Your task to perform on an android device: Play the last video I watched on Youtube Image 0: 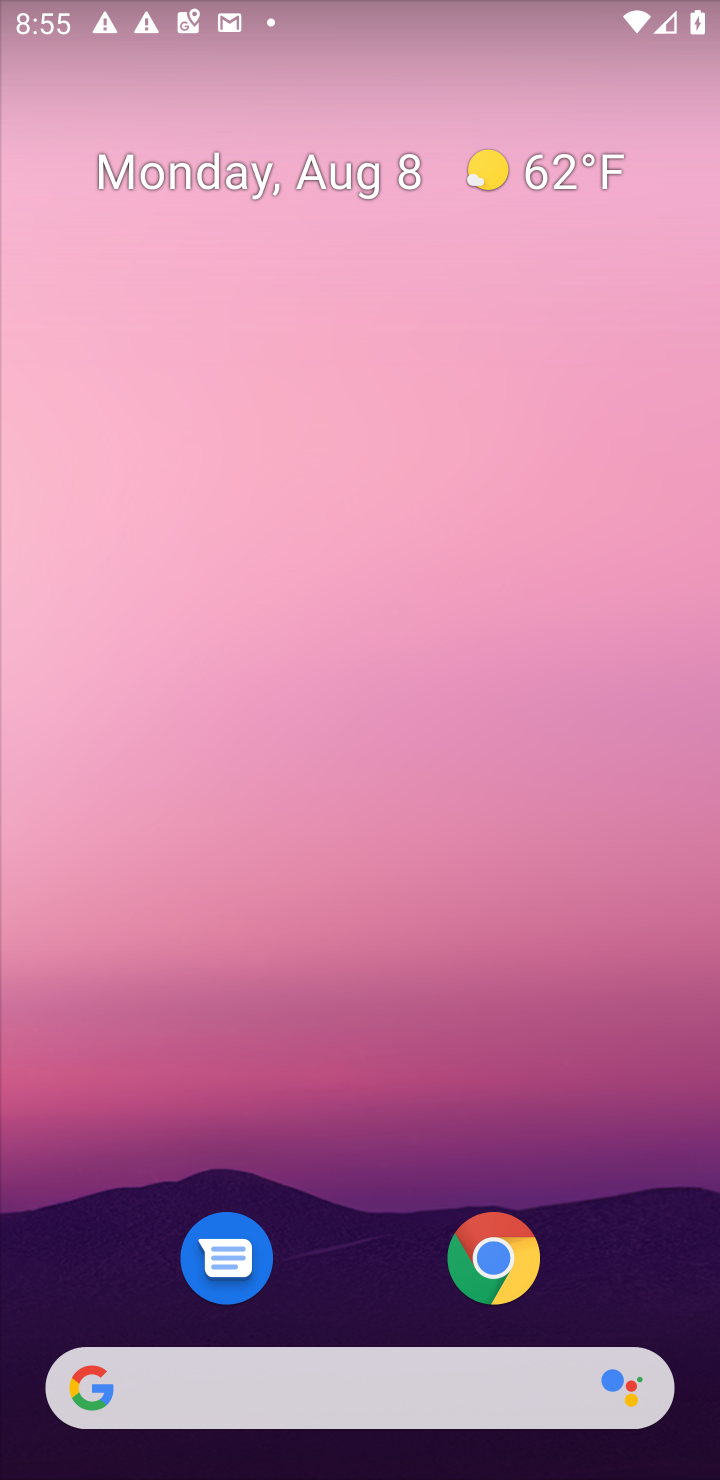
Step 0: press home button
Your task to perform on an android device: Play the last video I watched on Youtube Image 1: 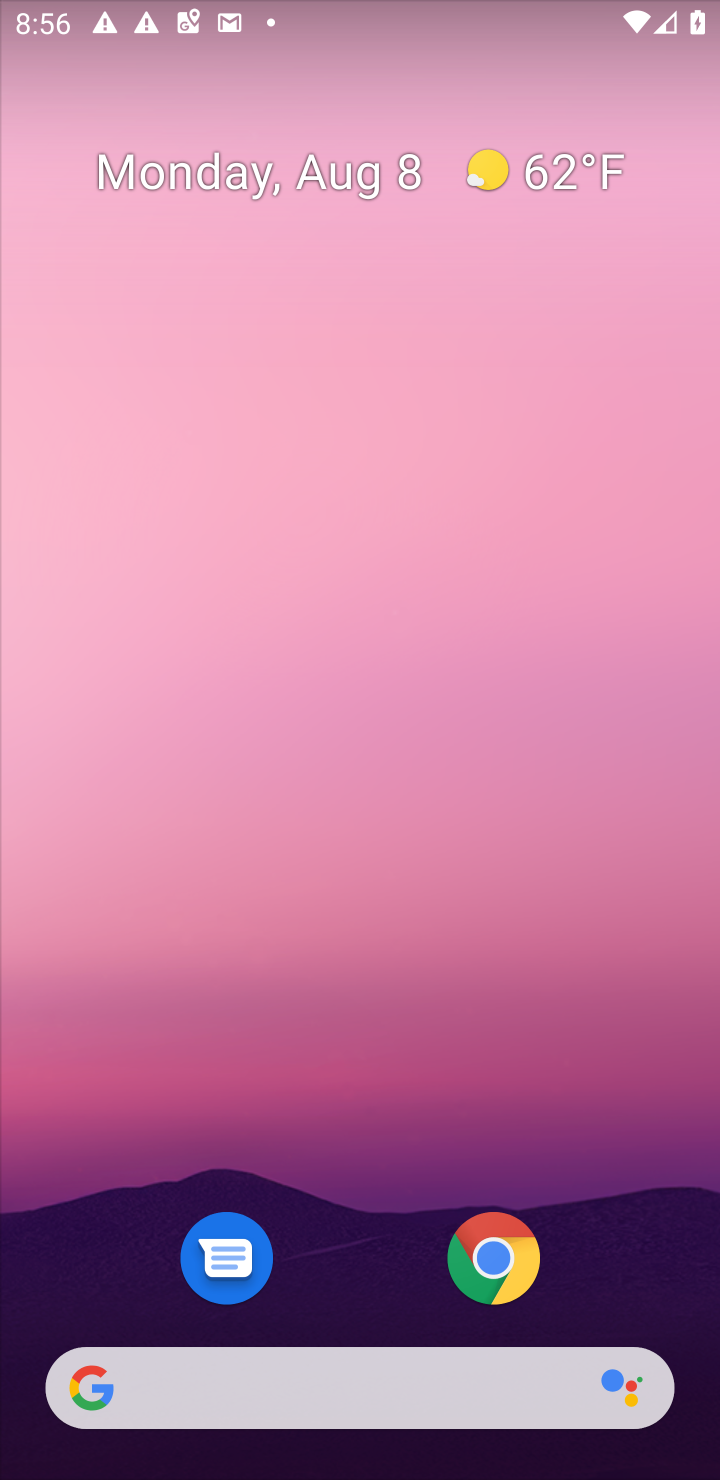
Step 1: drag from (395, 1146) to (488, 337)
Your task to perform on an android device: Play the last video I watched on Youtube Image 2: 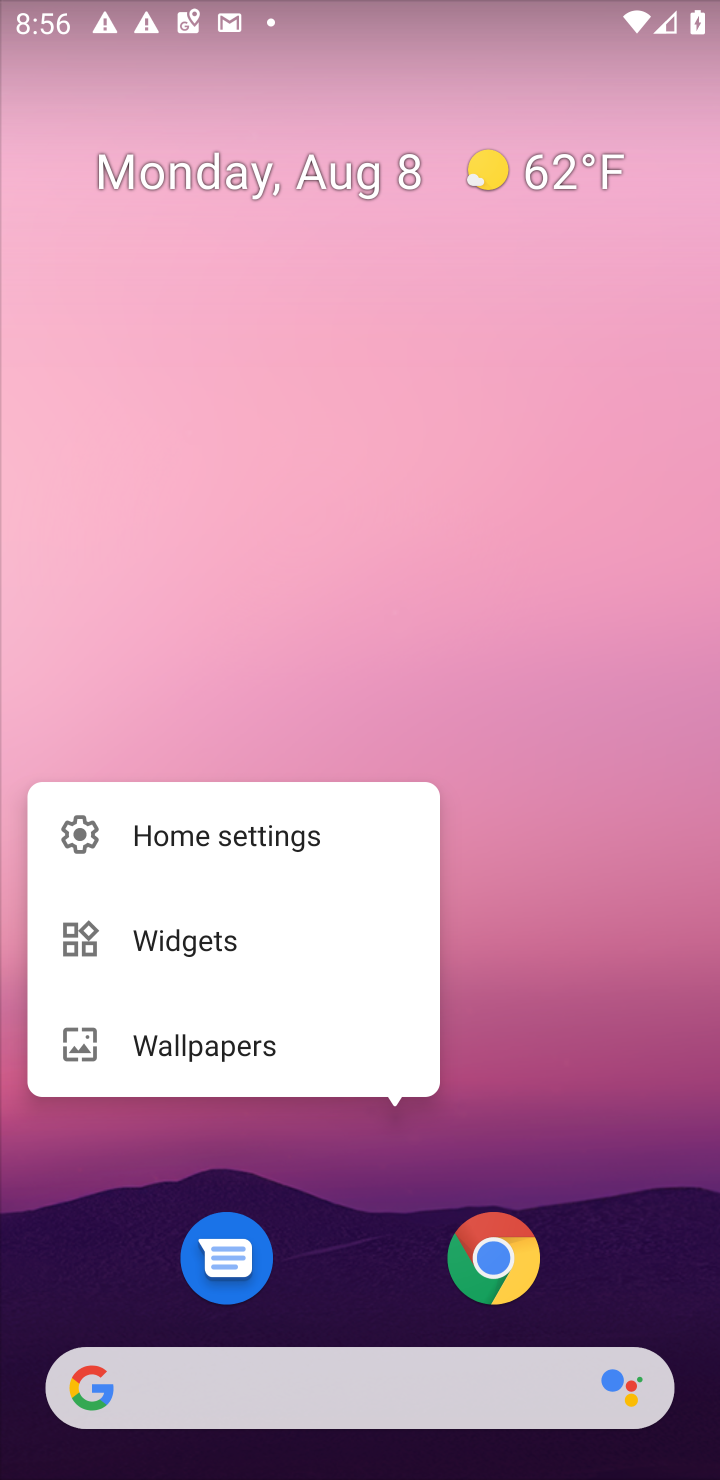
Step 2: click (565, 817)
Your task to perform on an android device: Play the last video I watched on Youtube Image 3: 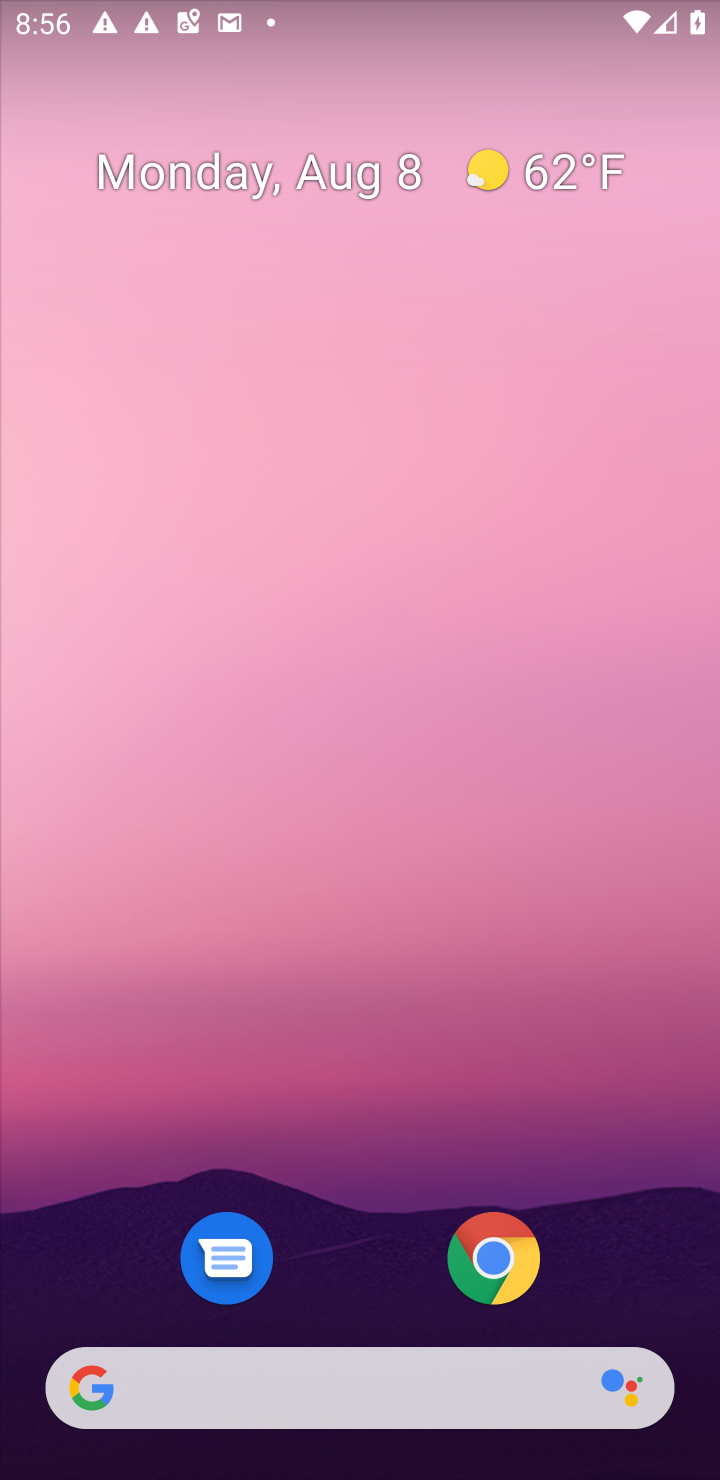
Step 3: drag from (427, 810) to (409, 269)
Your task to perform on an android device: Play the last video I watched on Youtube Image 4: 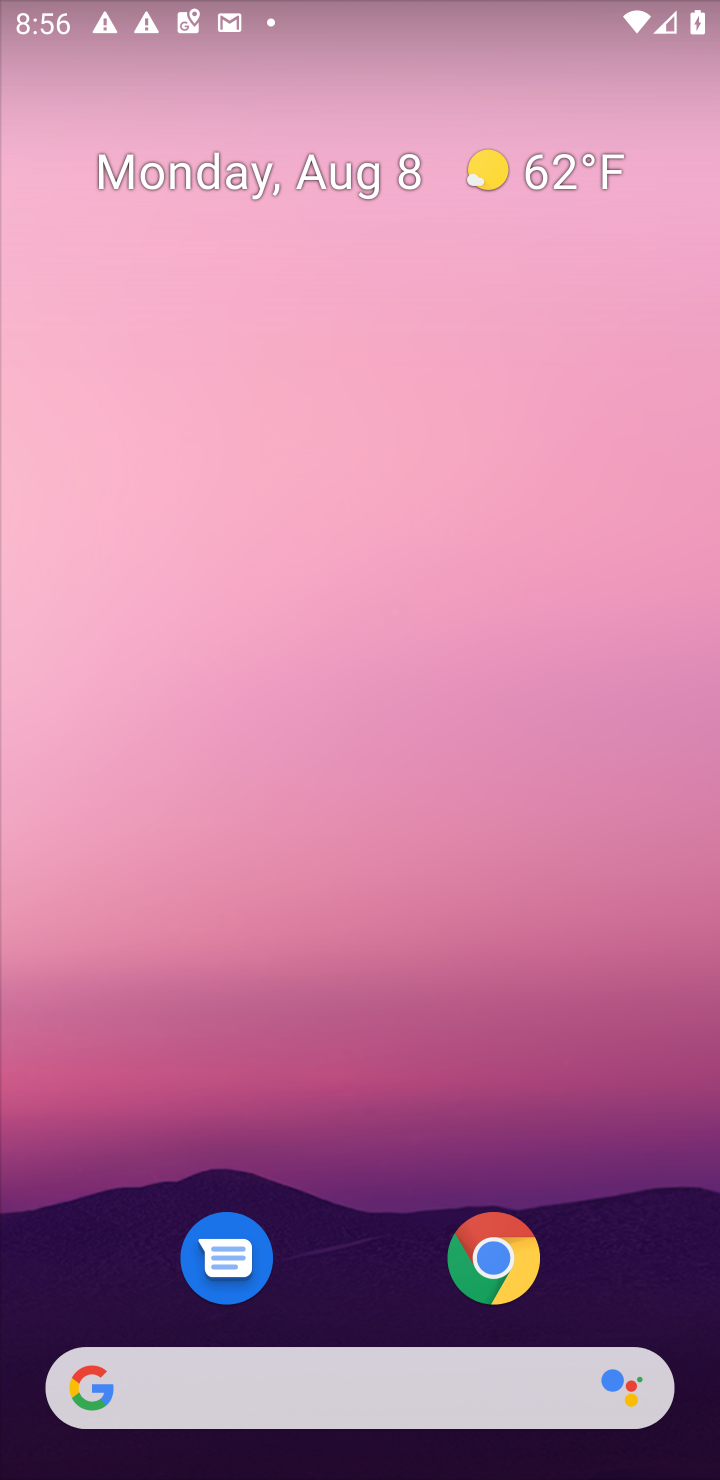
Step 4: drag from (354, 795) to (320, 220)
Your task to perform on an android device: Play the last video I watched on Youtube Image 5: 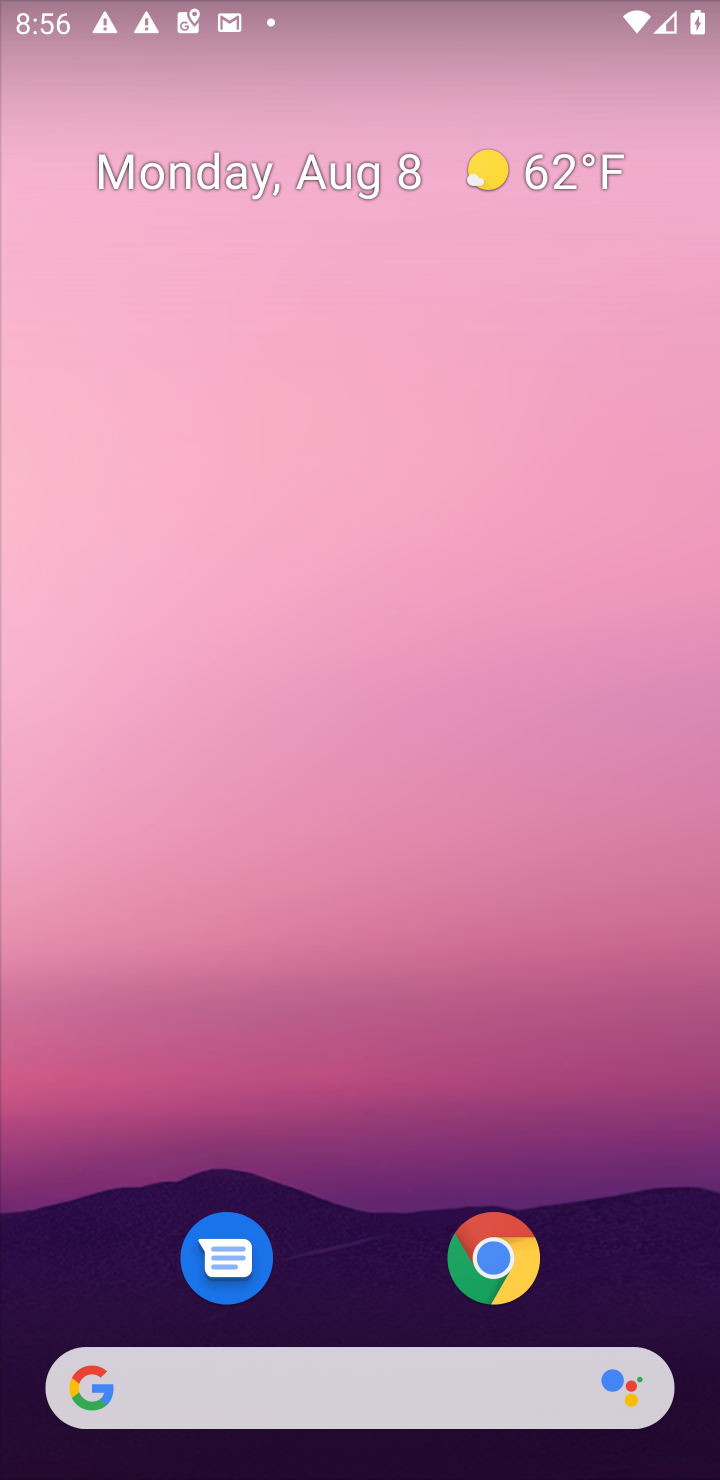
Step 5: drag from (337, 1034) to (223, 16)
Your task to perform on an android device: Play the last video I watched on Youtube Image 6: 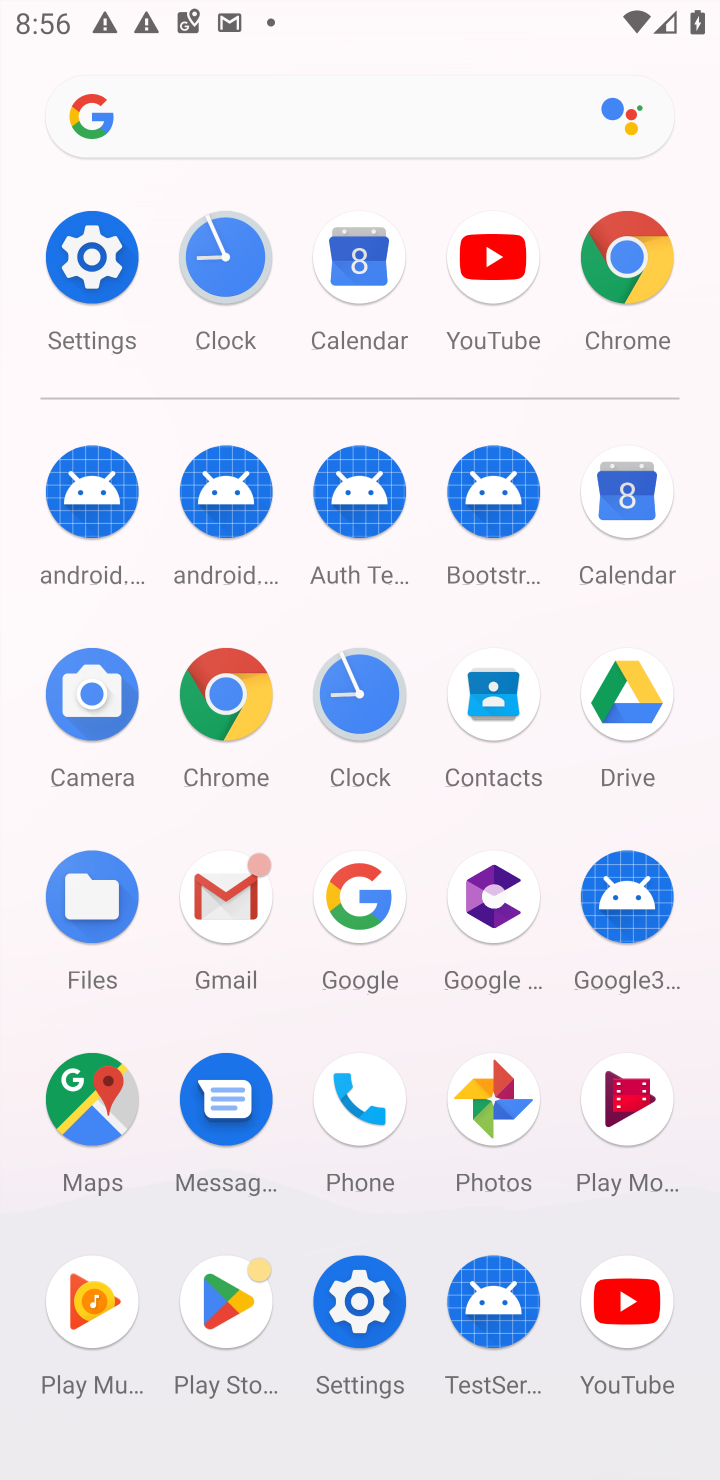
Step 6: click (639, 1315)
Your task to perform on an android device: Play the last video I watched on Youtube Image 7: 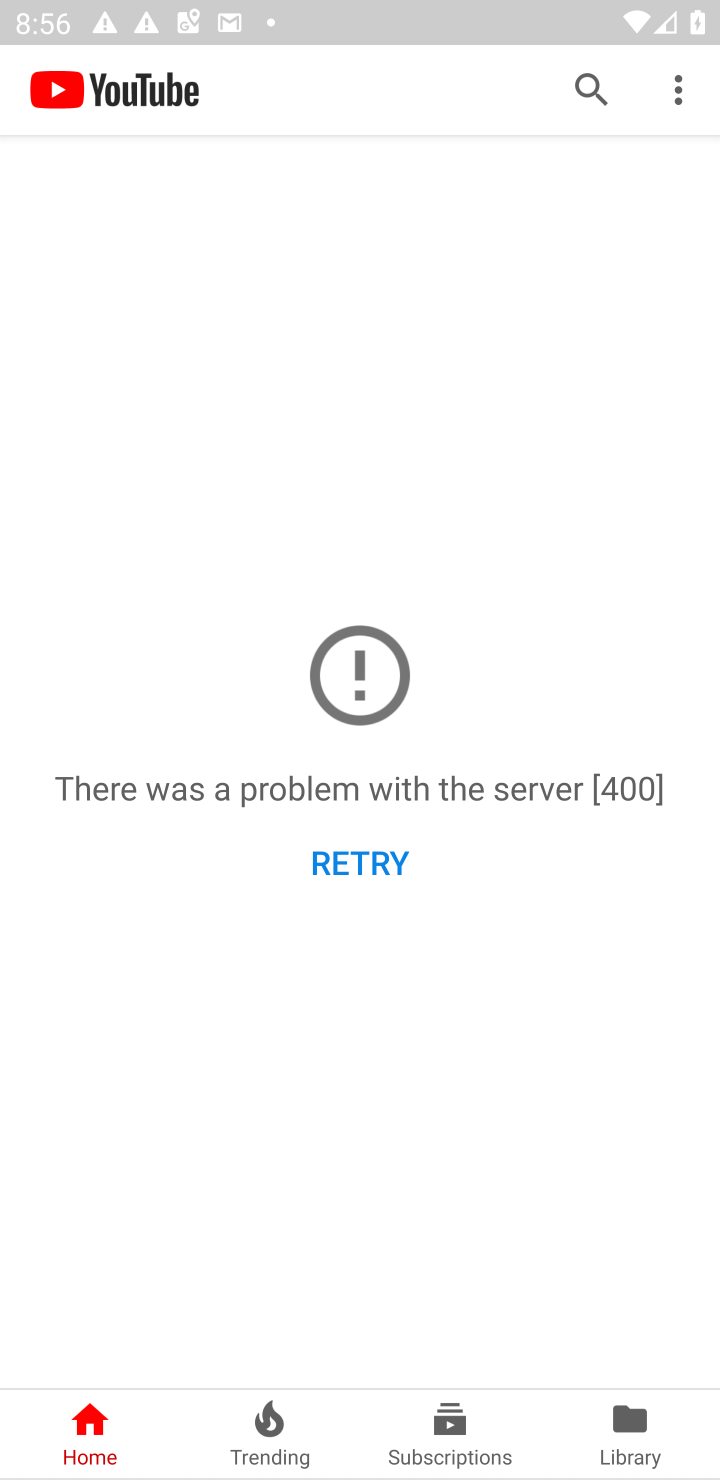
Step 7: click (537, 735)
Your task to perform on an android device: Play the last video I watched on Youtube Image 8: 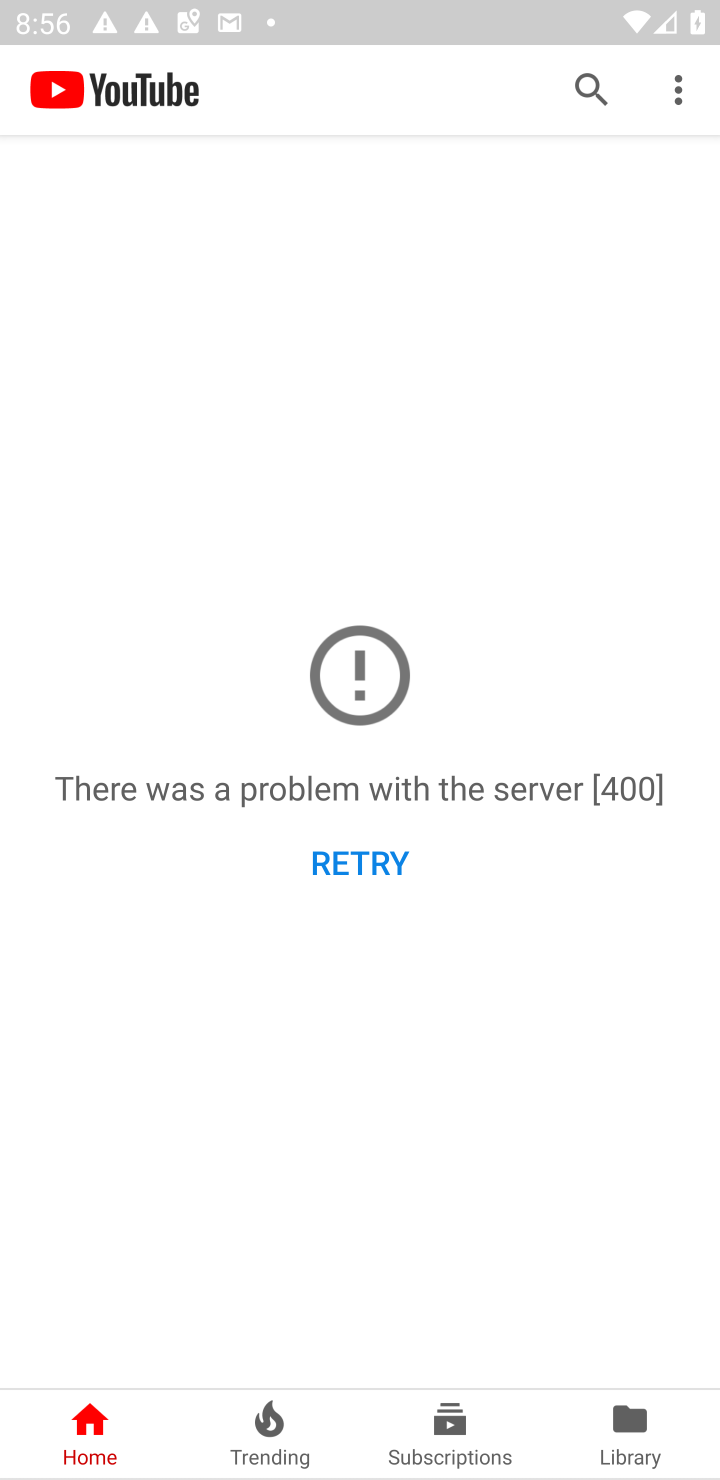
Step 8: task complete